Your task to perform on an android device: find snoozed emails in the gmail app Image 0: 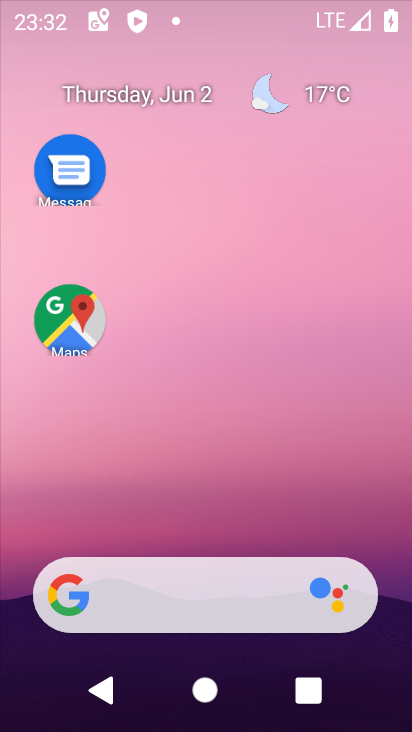
Step 0: press home button
Your task to perform on an android device: find snoozed emails in the gmail app Image 1: 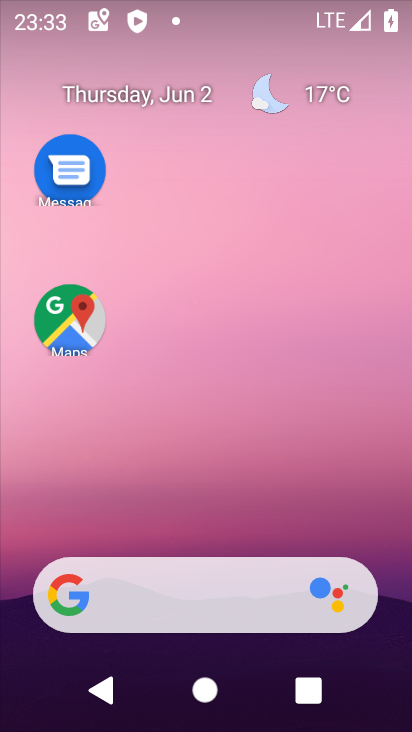
Step 1: drag from (238, 504) to (229, 58)
Your task to perform on an android device: find snoozed emails in the gmail app Image 2: 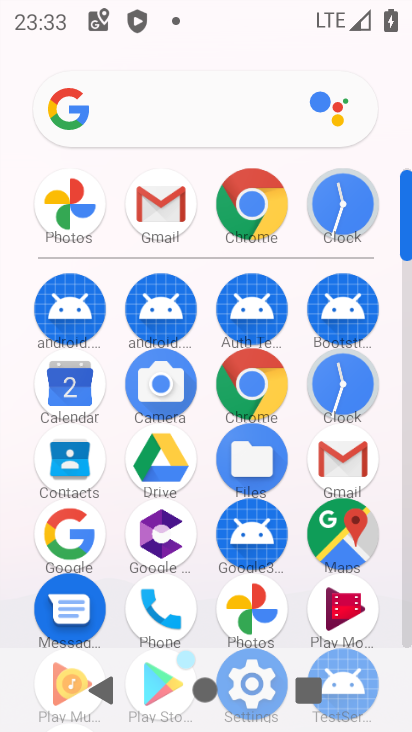
Step 2: click (178, 216)
Your task to perform on an android device: find snoozed emails in the gmail app Image 3: 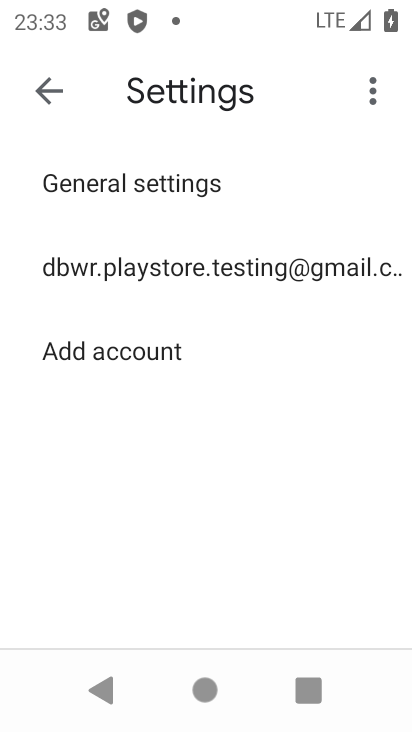
Step 3: click (44, 96)
Your task to perform on an android device: find snoozed emails in the gmail app Image 4: 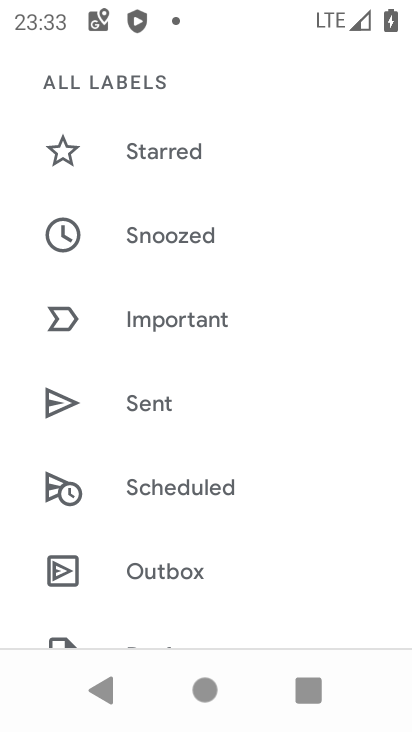
Step 4: click (169, 233)
Your task to perform on an android device: find snoozed emails in the gmail app Image 5: 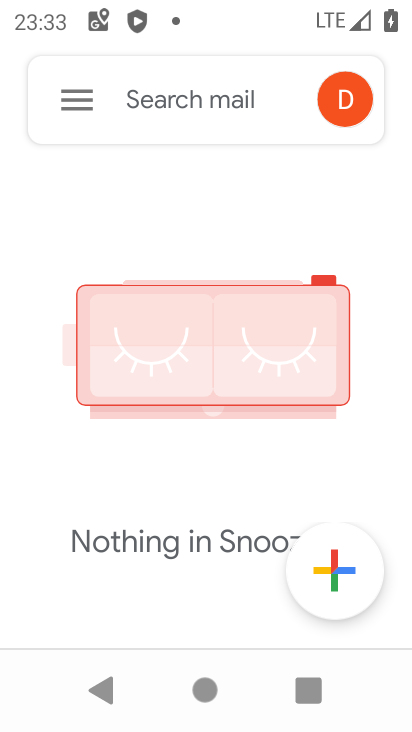
Step 5: task complete